Your task to perform on an android device: Go to eBay Image 0: 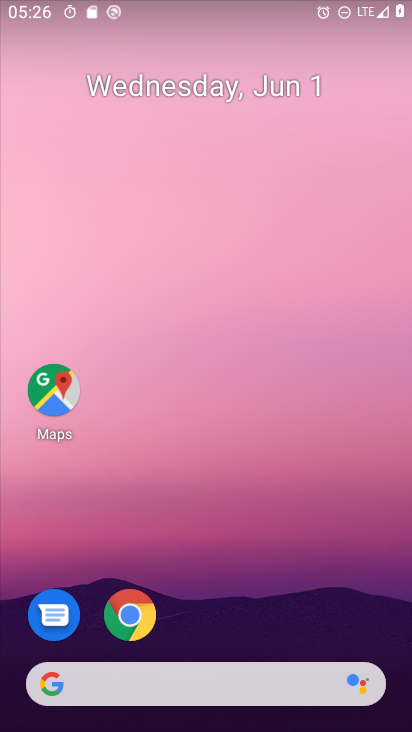
Step 0: drag from (297, 593) to (408, 424)
Your task to perform on an android device: Go to eBay Image 1: 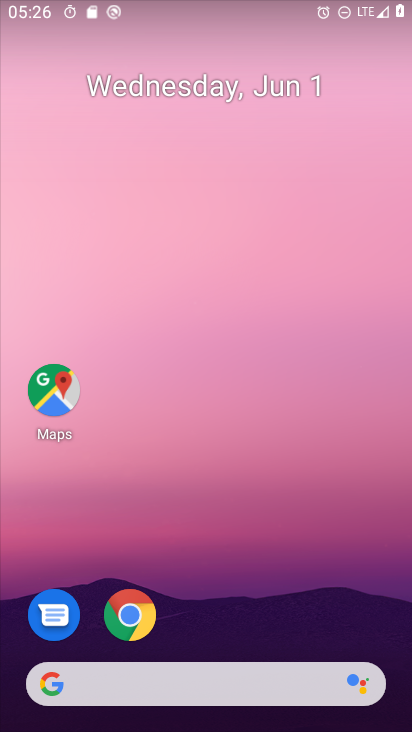
Step 1: drag from (334, 579) to (378, 12)
Your task to perform on an android device: Go to eBay Image 2: 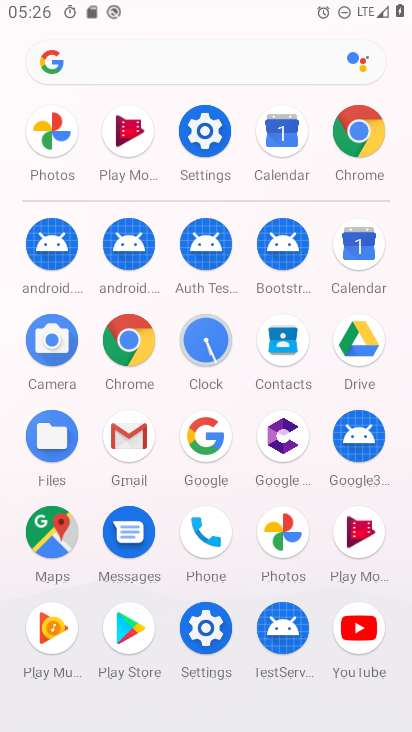
Step 2: click (132, 358)
Your task to perform on an android device: Go to eBay Image 3: 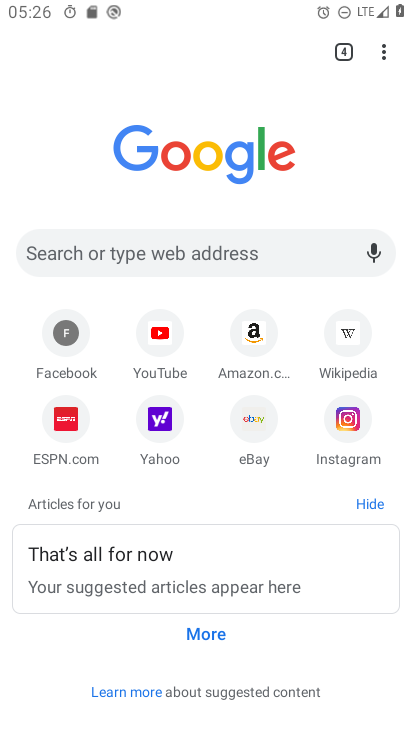
Step 3: click (220, 254)
Your task to perform on an android device: Go to eBay Image 4: 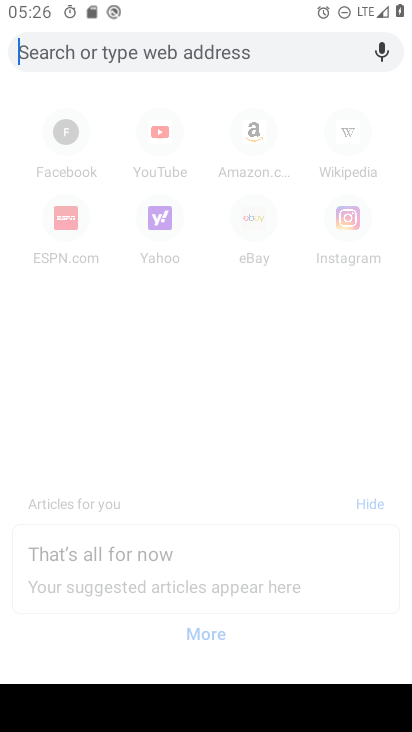
Step 4: press back button
Your task to perform on an android device: Go to eBay Image 5: 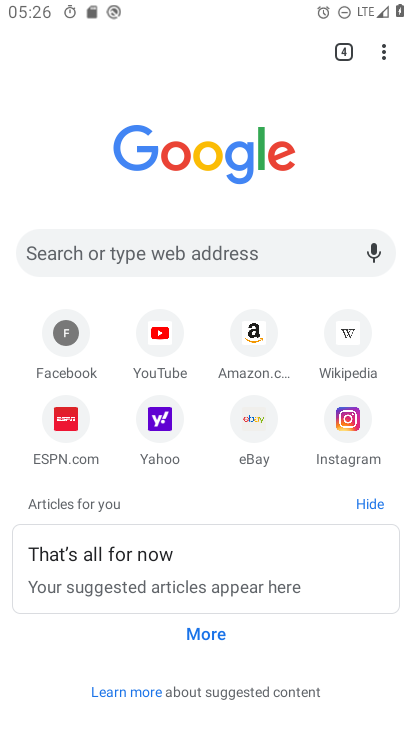
Step 5: click (238, 427)
Your task to perform on an android device: Go to eBay Image 6: 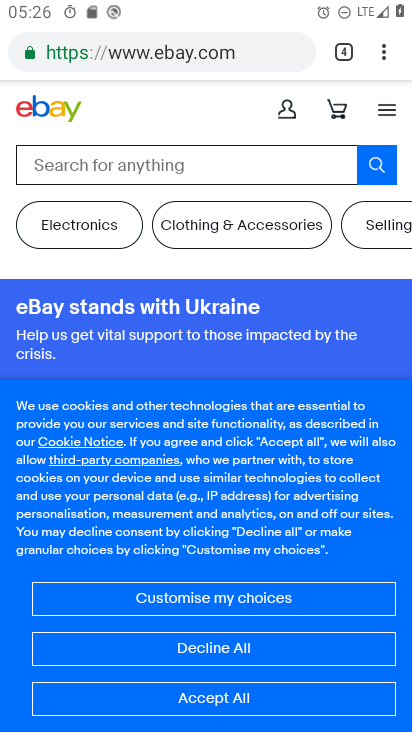
Step 6: task complete